Your task to perform on an android device: Open accessibility settings Image 0: 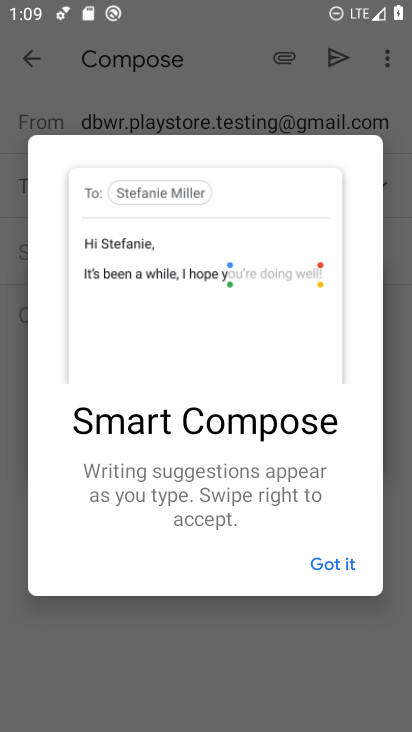
Step 0: press home button
Your task to perform on an android device: Open accessibility settings Image 1: 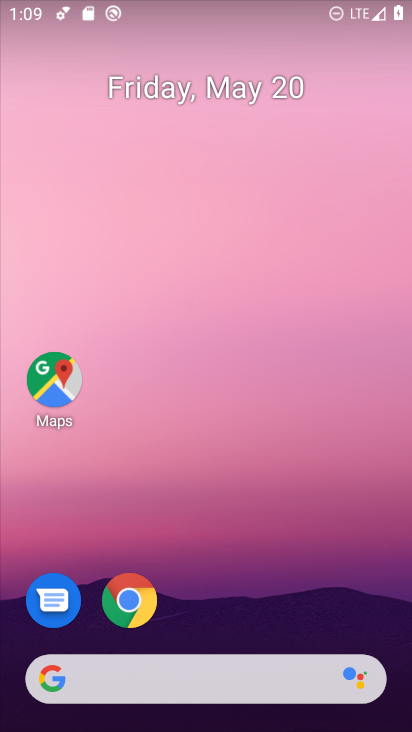
Step 1: drag from (241, 685) to (198, 16)
Your task to perform on an android device: Open accessibility settings Image 2: 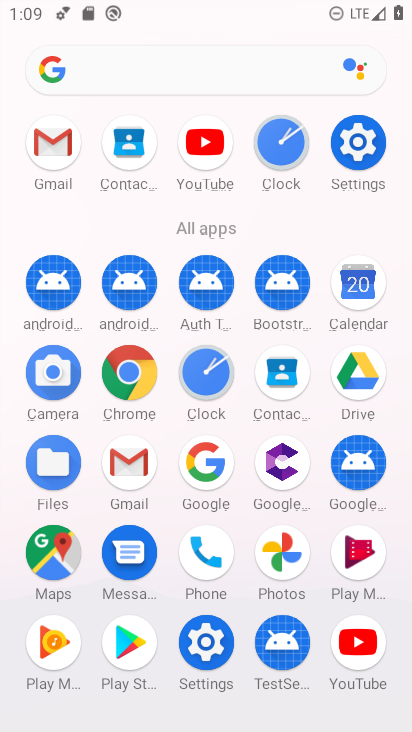
Step 2: click (367, 151)
Your task to perform on an android device: Open accessibility settings Image 3: 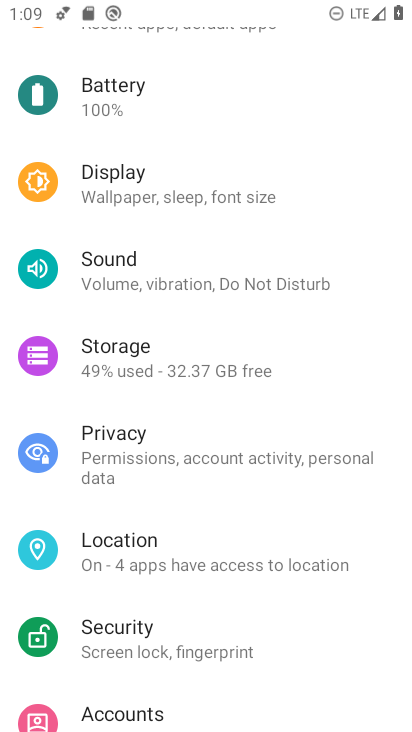
Step 3: drag from (137, 623) to (92, 7)
Your task to perform on an android device: Open accessibility settings Image 4: 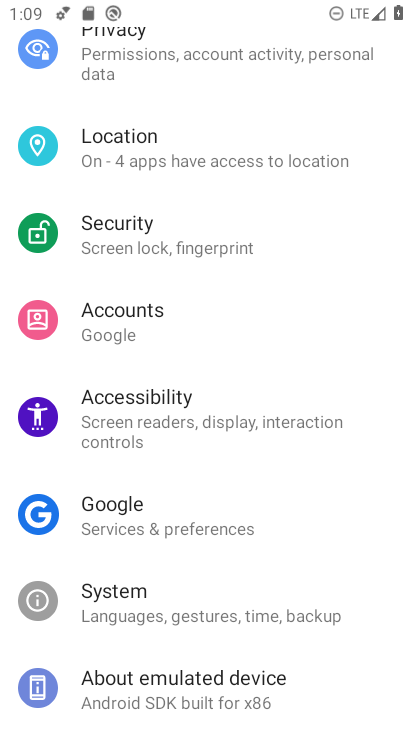
Step 4: click (140, 430)
Your task to perform on an android device: Open accessibility settings Image 5: 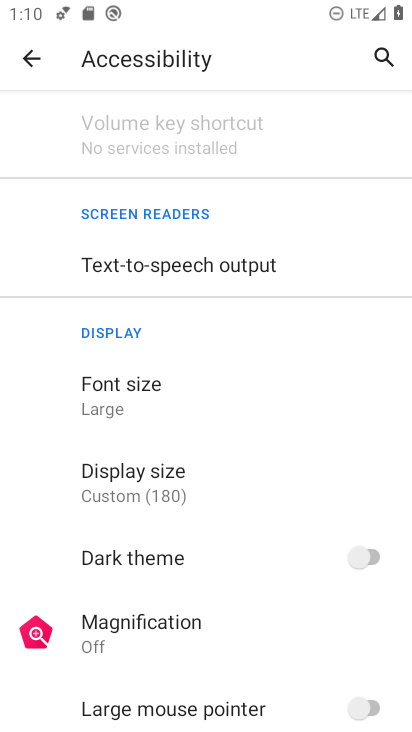
Step 5: task complete